Your task to perform on an android device: Do I have any events today? Image 0: 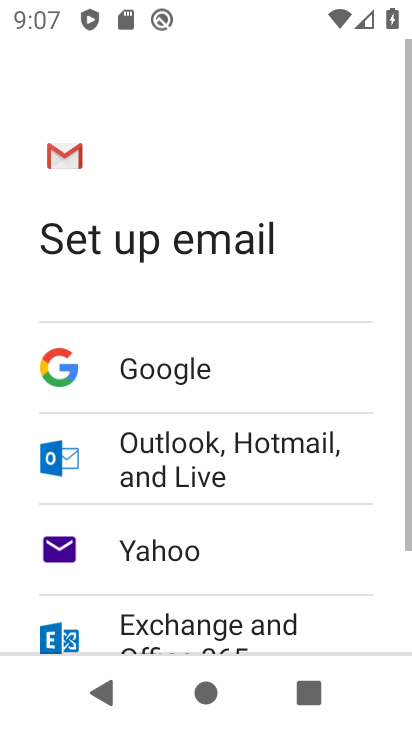
Step 0: press back button
Your task to perform on an android device: Do I have any events today? Image 1: 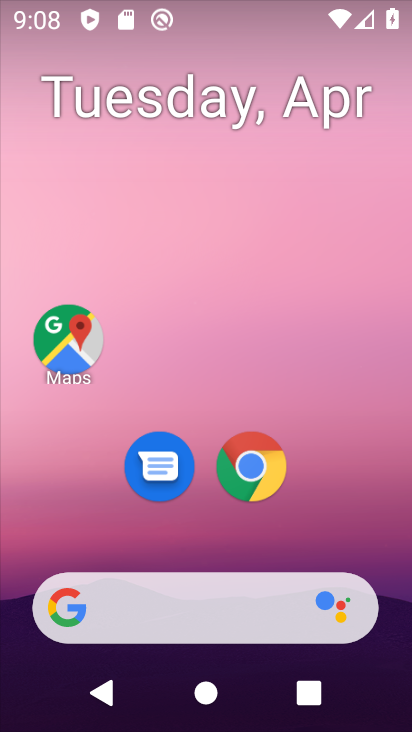
Step 1: drag from (352, 527) to (189, 124)
Your task to perform on an android device: Do I have any events today? Image 2: 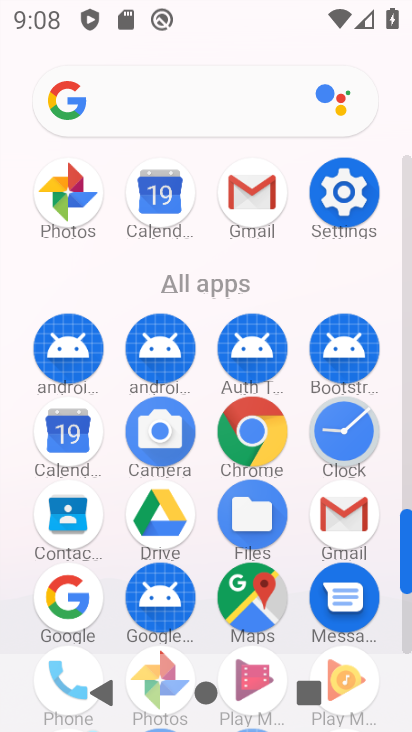
Step 2: click (66, 430)
Your task to perform on an android device: Do I have any events today? Image 3: 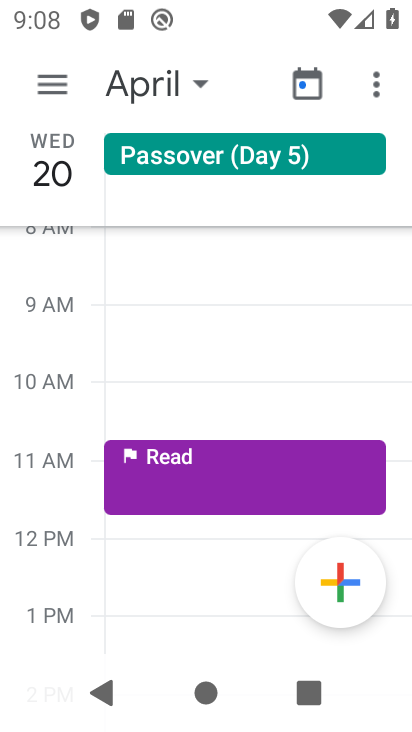
Step 3: click (52, 170)
Your task to perform on an android device: Do I have any events today? Image 4: 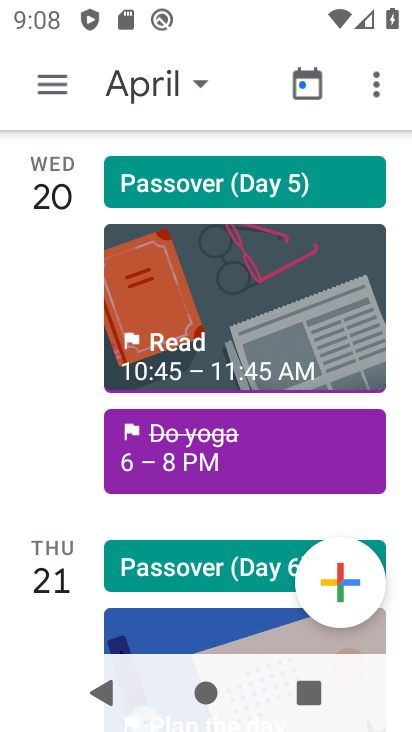
Step 4: task complete